Your task to perform on an android device: toggle notification dots Image 0: 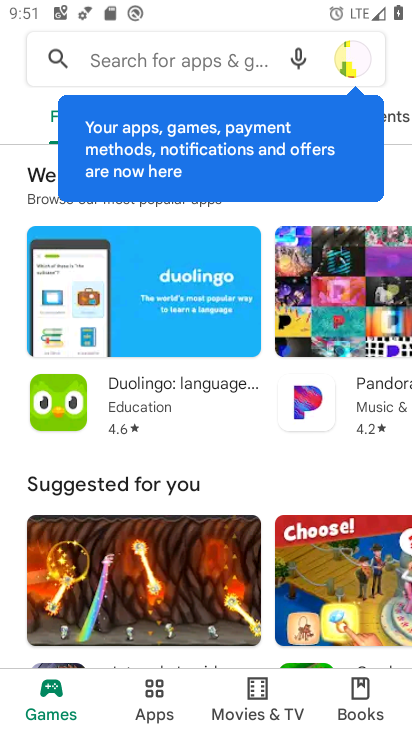
Step 0: press home button
Your task to perform on an android device: toggle notification dots Image 1: 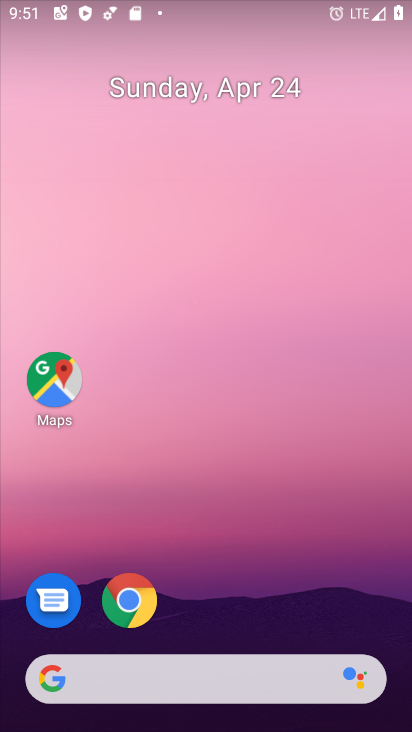
Step 1: drag from (255, 581) to (410, 222)
Your task to perform on an android device: toggle notification dots Image 2: 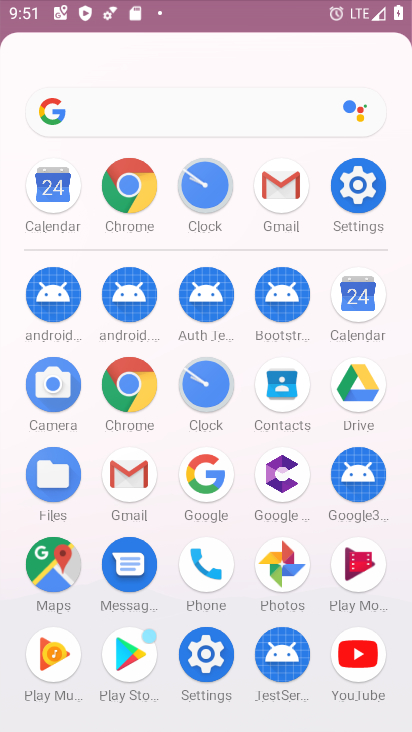
Step 2: click (357, 208)
Your task to perform on an android device: toggle notification dots Image 3: 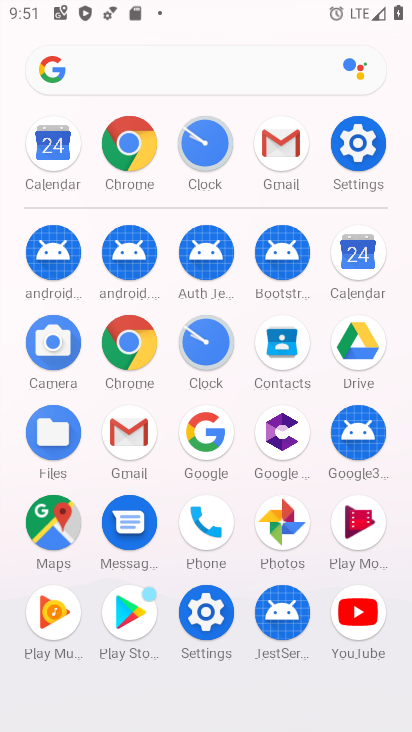
Step 3: click (339, 156)
Your task to perform on an android device: toggle notification dots Image 4: 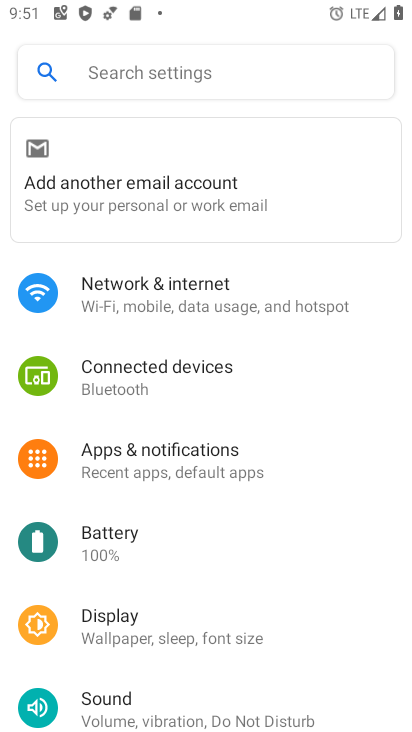
Step 4: click (122, 452)
Your task to perform on an android device: toggle notification dots Image 5: 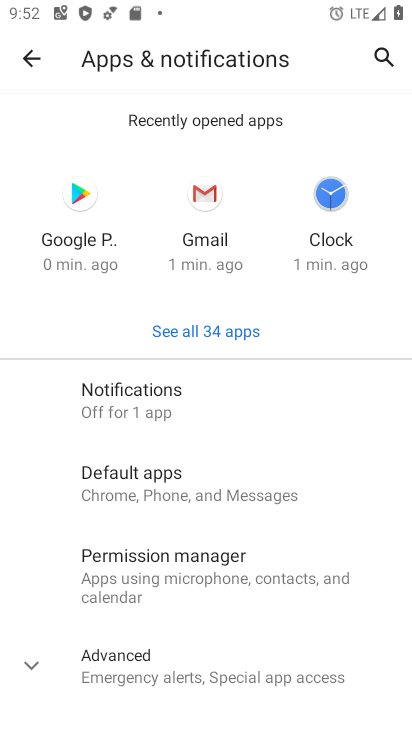
Step 5: click (157, 397)
Your task to perform on an android device: toggle notification dots Image 6: 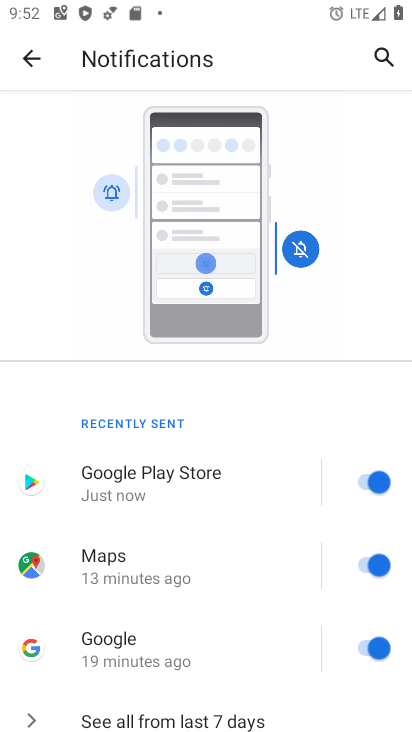
Step 6: drag from (187, 640) to (260, 276)
Your task to perform on an android device: toggle notification dots Image 7: 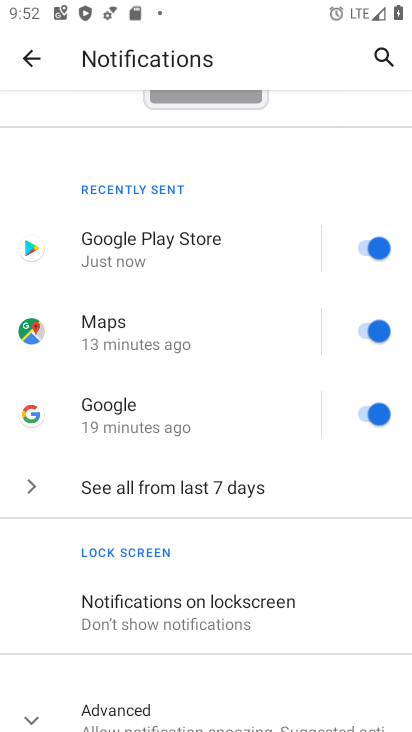
Step 7: drag from (216, 624) to (258, 327)
Your task to perform on an android device: toggle notification dots Image 8: 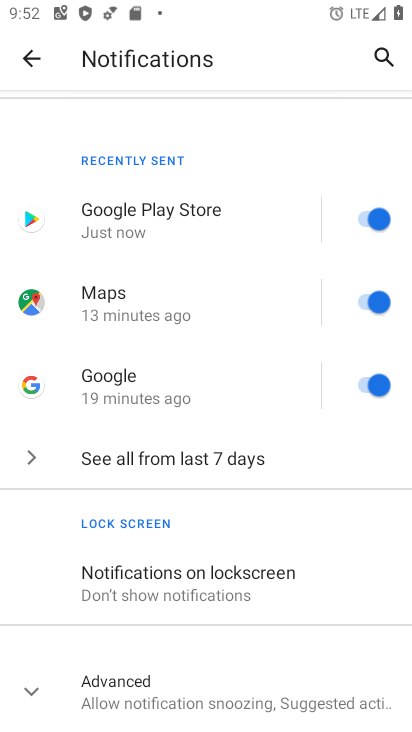
Step 8: click (151, 678)
Your task to perform on an android device: toggle notification dots Image 9: 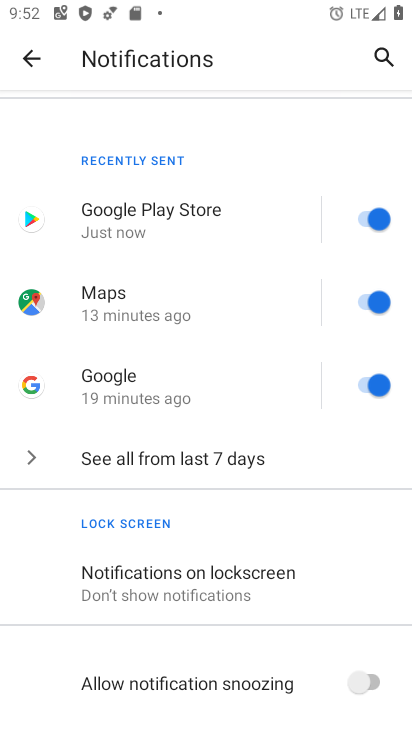
Step 9: drag from (163, 658) to (188, 234)
Your task to perform on an android device: toggle notification dots Image 10: 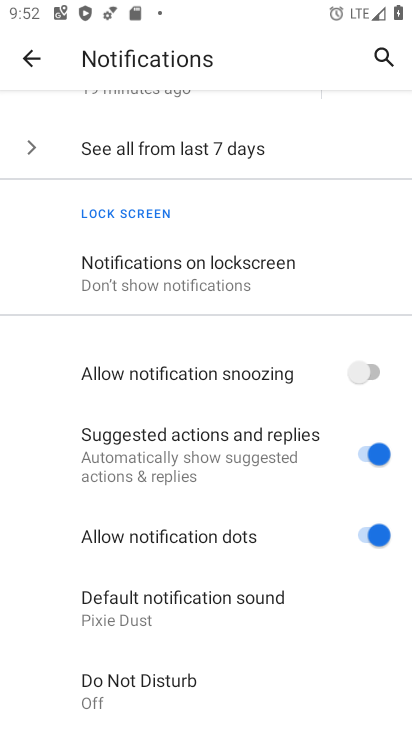
Step 10: click (374, 523)
Your task to perform on an android device: toggle notification dots Image 11: 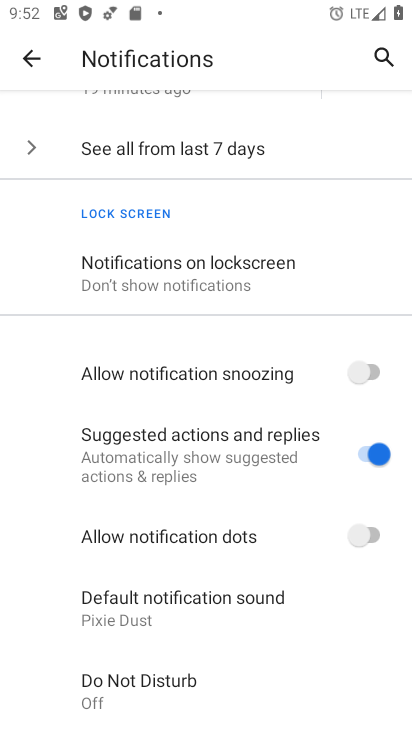
Step 11: task complete